Your task to perform on an android device: refresh tabs in the chrome app Image 0: 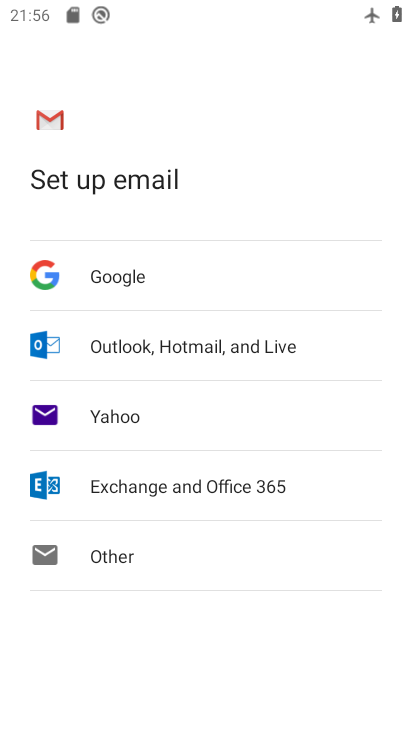
Step 0: press home button
Your task to perform on an android device: refresh tabs in the chrome app Image 1: 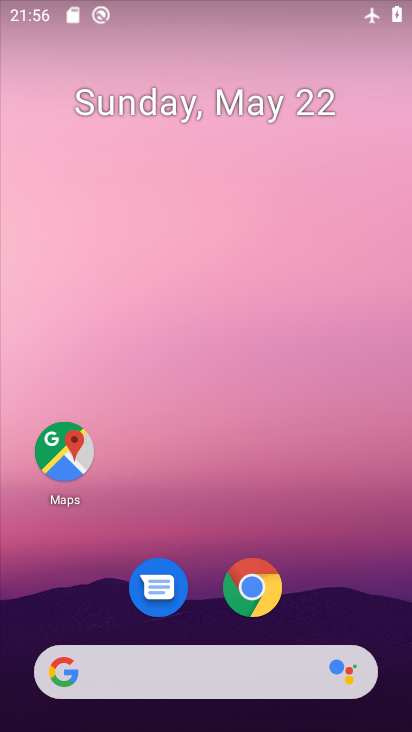
Step 1: click (250, 596)
Your task to perform on an android device: refresh tabs in the chrome app Image 2: 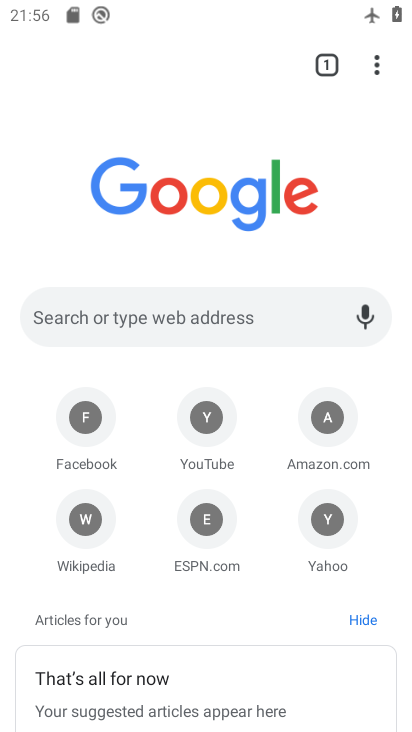
Step 2: click (374, 60)
Your task to perform on an android device: refresh tabs in the chrome app Image 3: 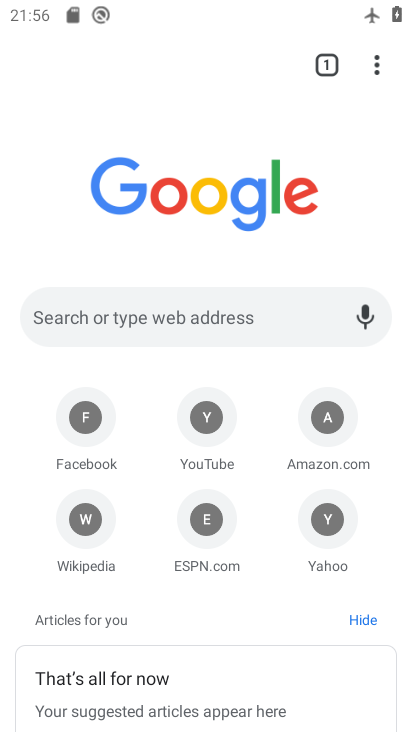
Step 3: click (374, 60)
Your task to perform on an android device: refresh tabs in the chrome app Image 4: 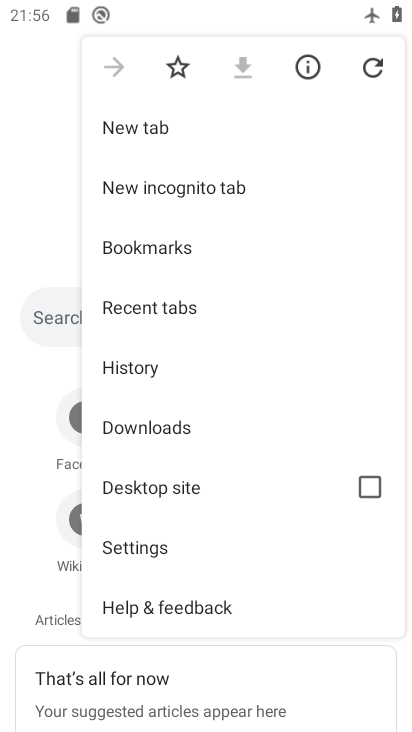
Step 4: click (194, 544)
Your task to perform on an android device: refresh tabs in the chrome app Image 5: 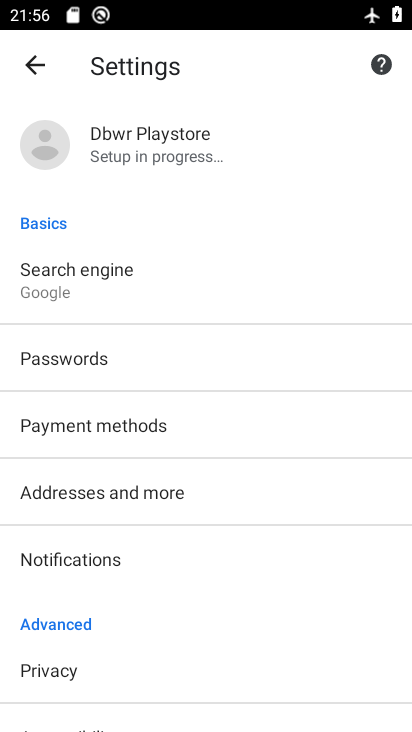
Step 5: click (38, 56)
Your task to perform on an android device: refresh tabs in the chrome app Image 6: 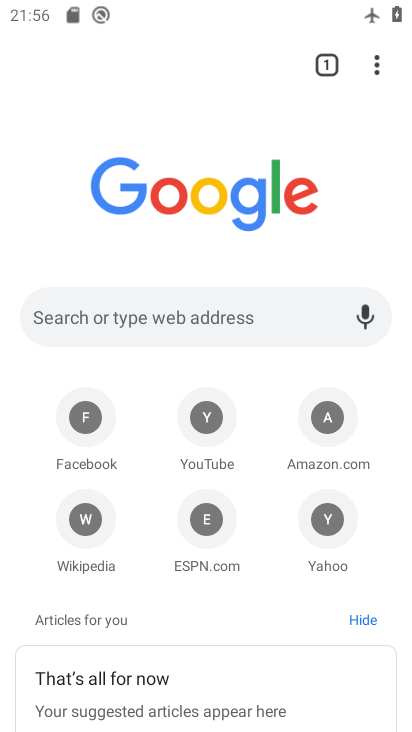
Step 6: click (375, 68)
Your task to perform on an android device: refresh tabs in the chrome app Image 7: 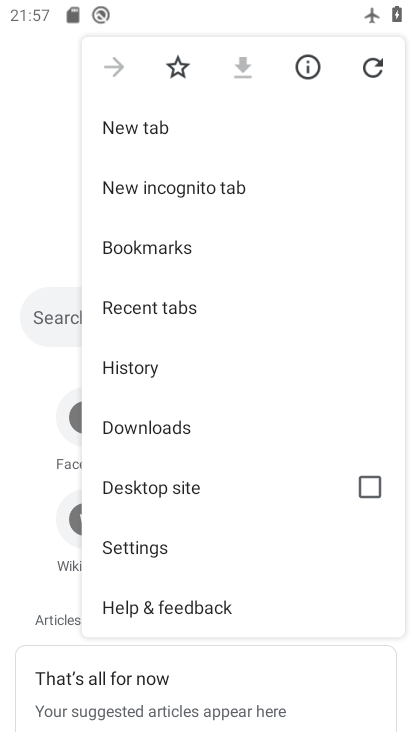
Step 7: click (369, 62)
Your task to perform on an android device: refresh tabs in the chrome app Image 8: 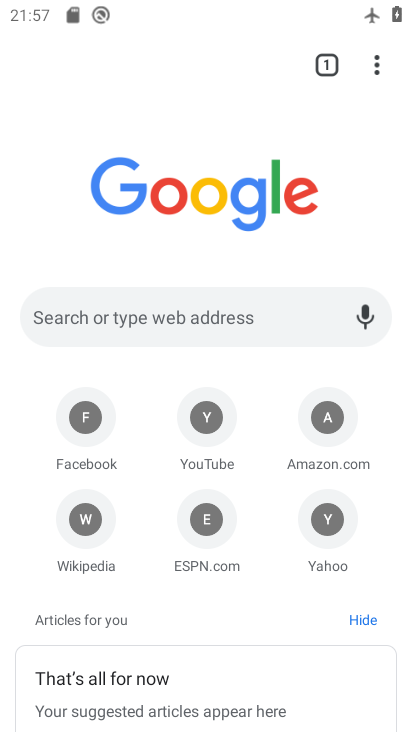
Step 8: task complete